Your task to perform on an android device: Search for "usb-c to usb-b" on bestbuy, select the first entry, add it to the cart, then select checkout. Image 0: 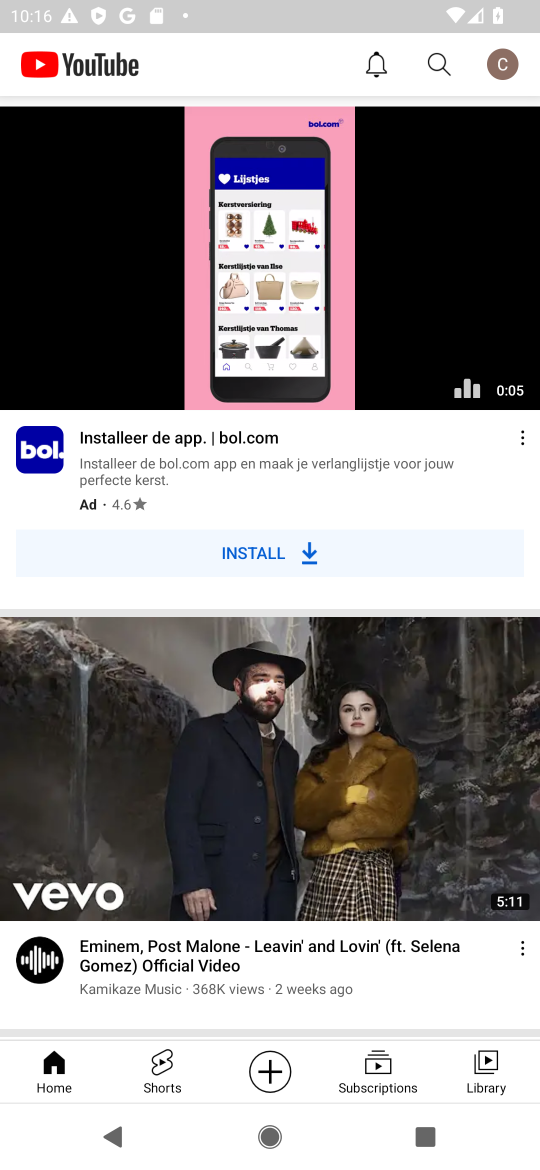
Step 0: press home button
Your task to perform on an android device: Search for "usb-c to usb-b" on bestbuy, select the first entry, add it to the cart, then select checkout. Image 1: 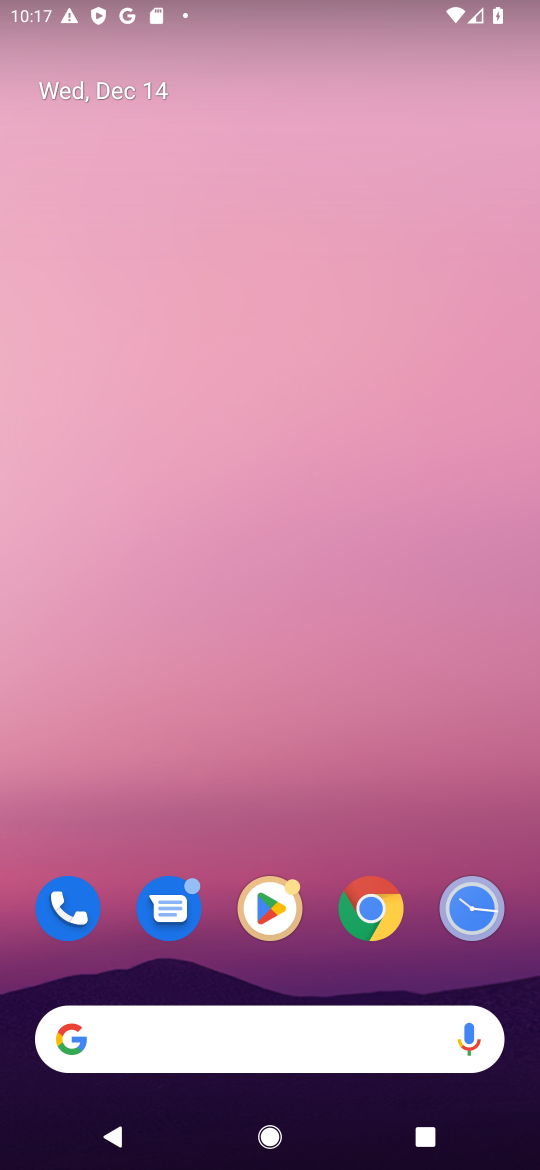
Step 1: click (266, 929)
Your task to perform on an android device: Search for "usb-c to usb-b" on bestbuy, select the first entry, add it to the cart, then select checkout. Image 2: 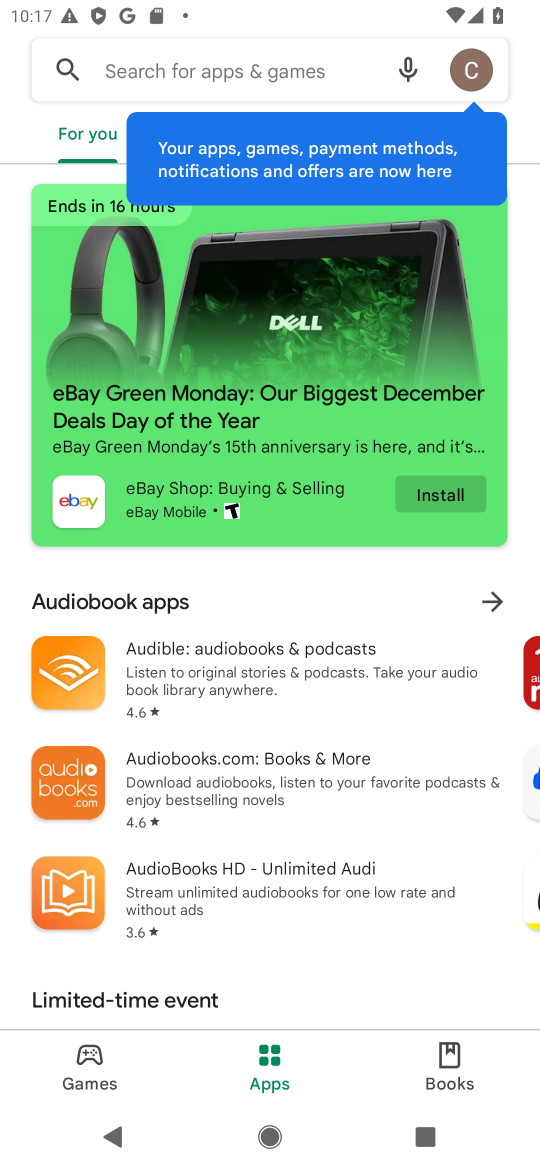
Step 2: task complete